Your task to perform on an android device: See recent photos Image 0: 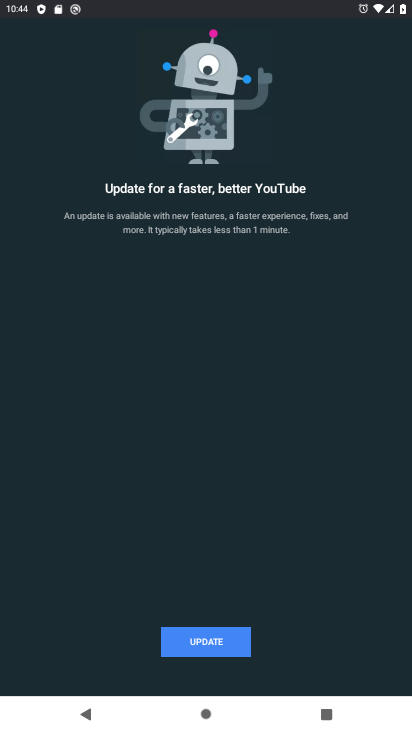
Step 0: press home button
Your task to perform on an android device: See recent photos Image 1: 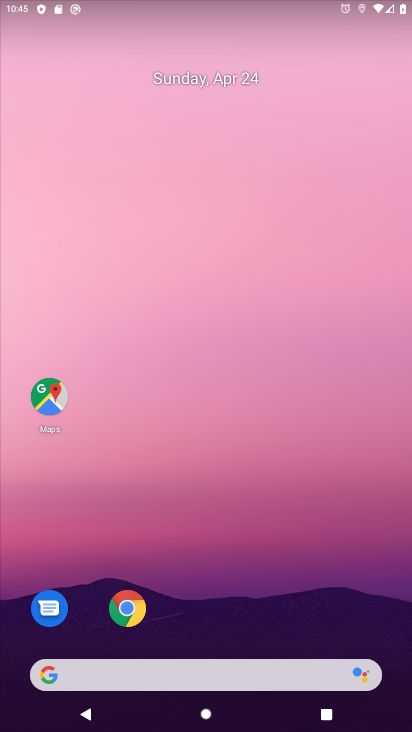
Step 1: drag from (367, 625) to (305, 107)
Your task to perform on an android device: See recent photos Image 2: 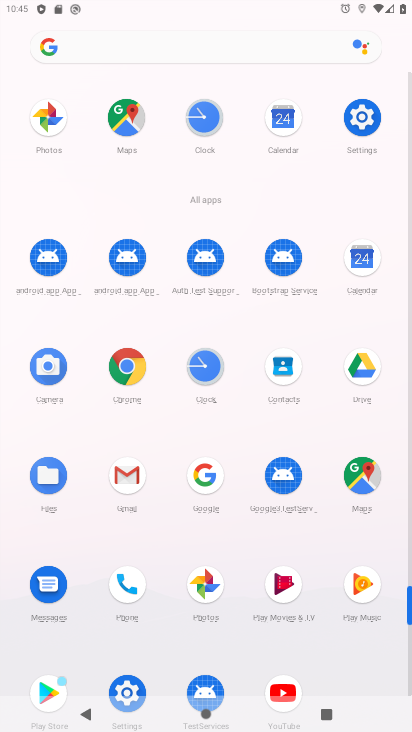
Step 2: click (409, 669)
Your task to perform on an android device: See recent photos Image 3: 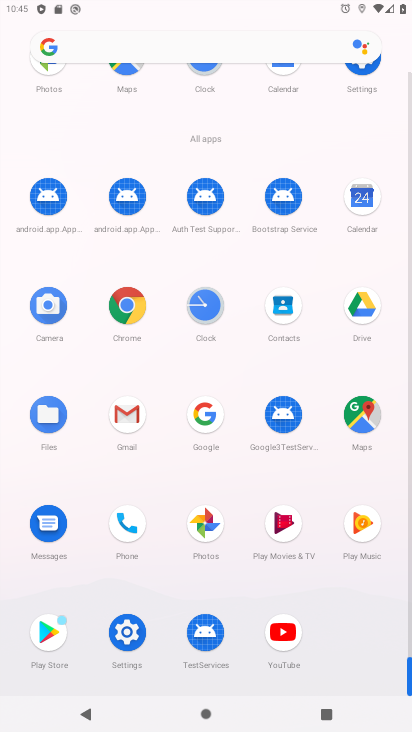
Step 3: click (203, 524)
Your task to perform on an android device: See recent photos Image 4: 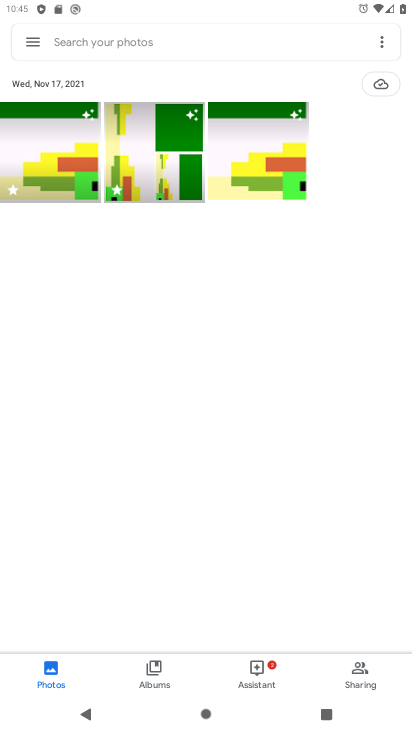
Step 4: task complete